Your task to perform on an android device: Play the last video I watched on Youtube Image 0: 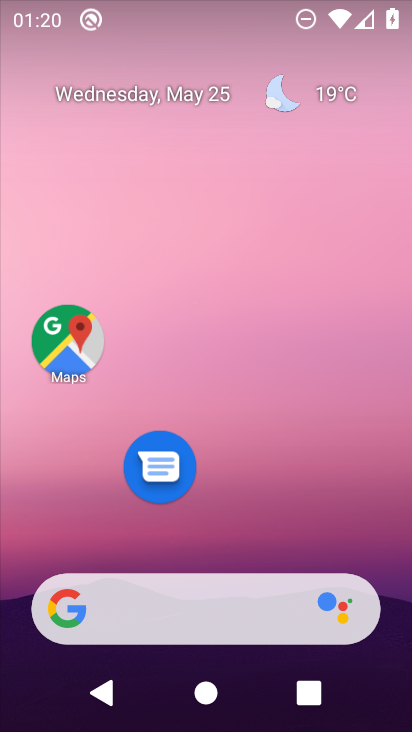
Step 0: drag from (226, 428) to (228, 242)
Your task to perform on an android device: Play the last video I watched on Youtube Image 1: 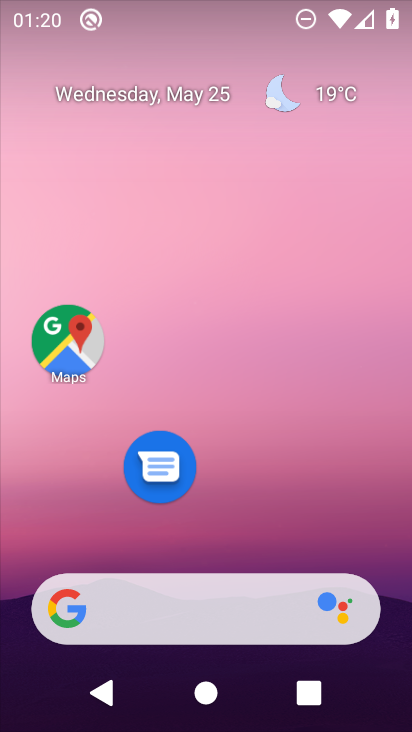
Step 1: drag from (203, 546) to (249, 143)
Your task to perform on an android device: Play the last video I watched on Youtube Image 2: 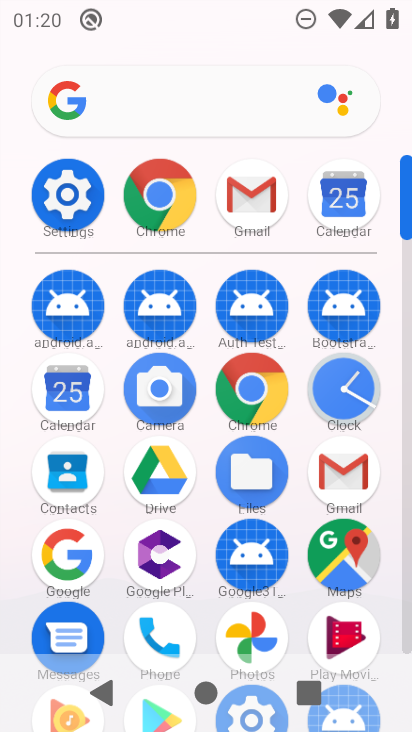
Step 2: drag from (219, 626) to (227, 119)
Your task to perform on an android device: Play the last video I watched on Youtube Image 3: 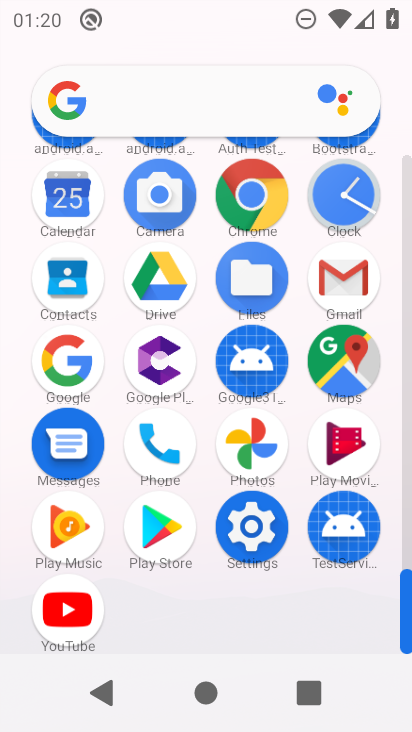
Step 3: click (28, 612)
Your task to perform on an android device: Play the last video I watched on Youtube Image 4: 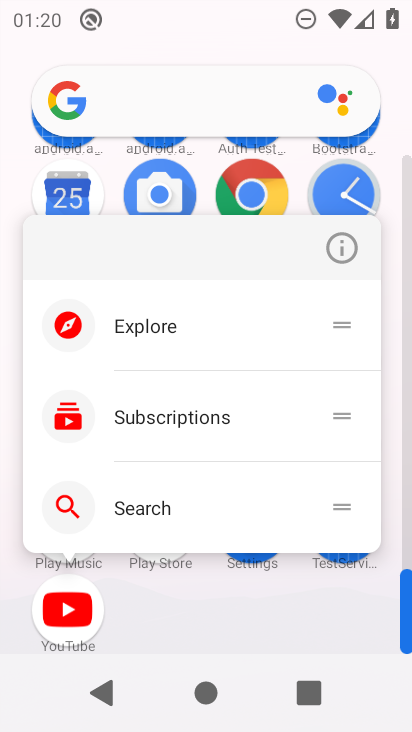
Step 4: click (339, 255)
Your task to perform on an android device: Play the last video I watched on Youtube Image 5: 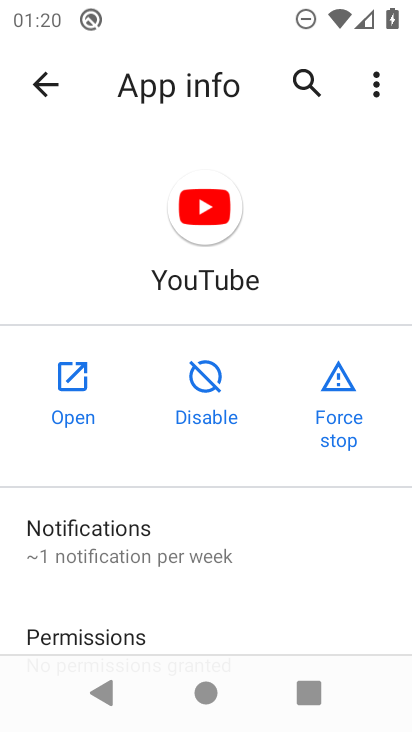
Step 5: click (85, 373)
Your task to perform on an android device: Play the last video I watched on Youtube Image 6: 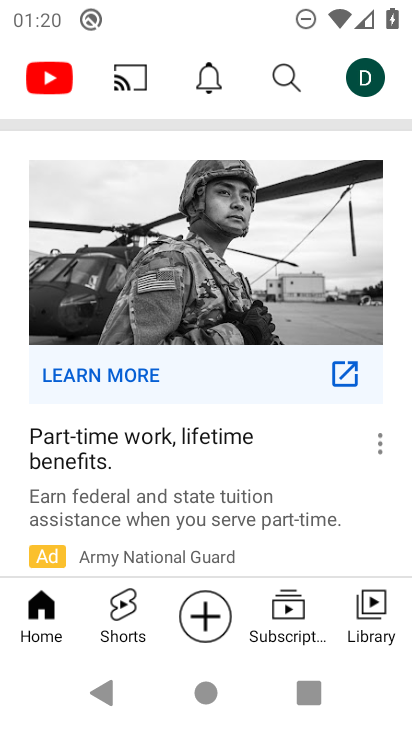
Step 6: click (364, 619)
Your task to perform on an android device: Play the last video I watched on Youtube Image 7: 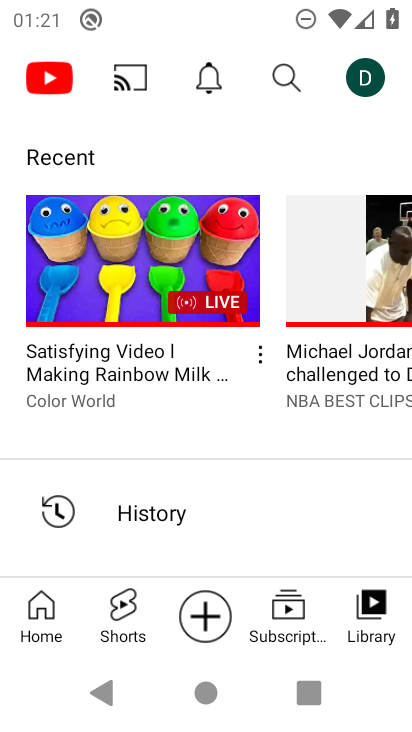
Step 7: click (186, 271)
Your task to perform on an android device: Play the last video I watched on Youtube Image 8: 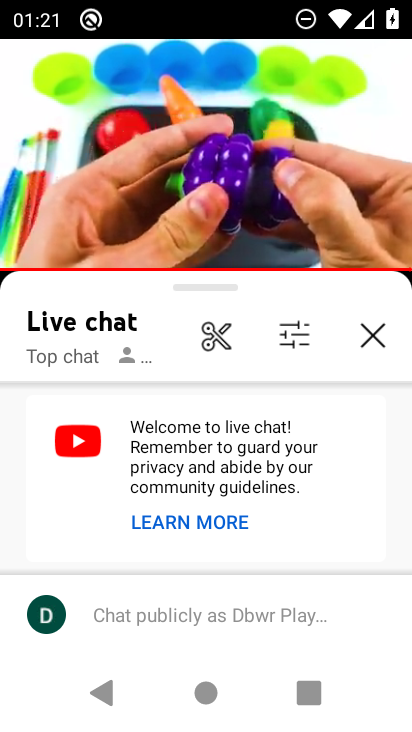
Step 8: task complete